Your task to perform on an android device: see tabs open on other devices in the chrome app Image 0: 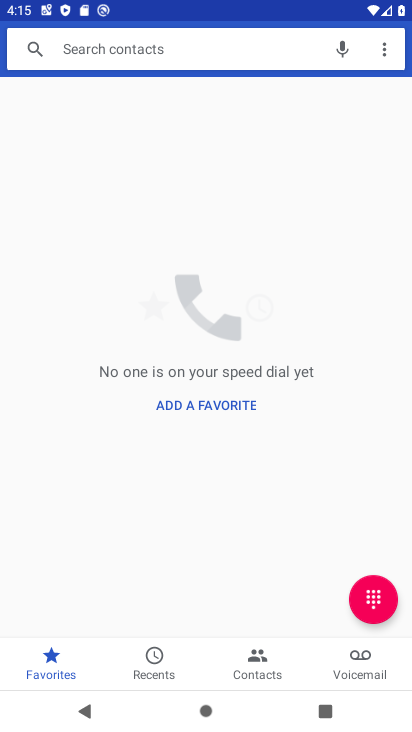
Step 0: press home button
Your task to perform on an android device: see tabs open on other devices in the chrome app Image 1: 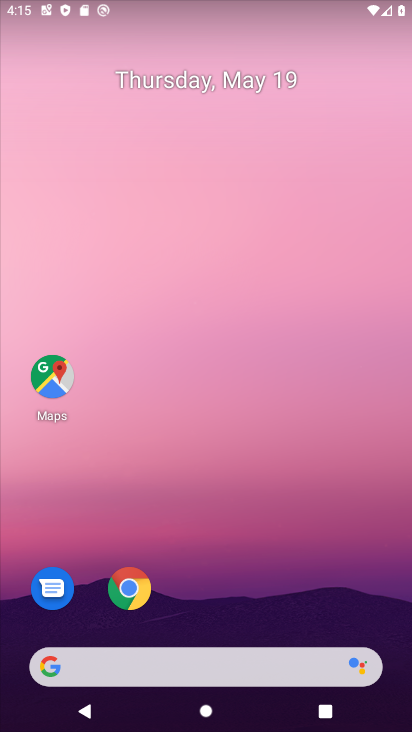
Step 1: click (118, 608)
Your task to perform on an android device: see tabs open on other devices in the chrome app Image 2: 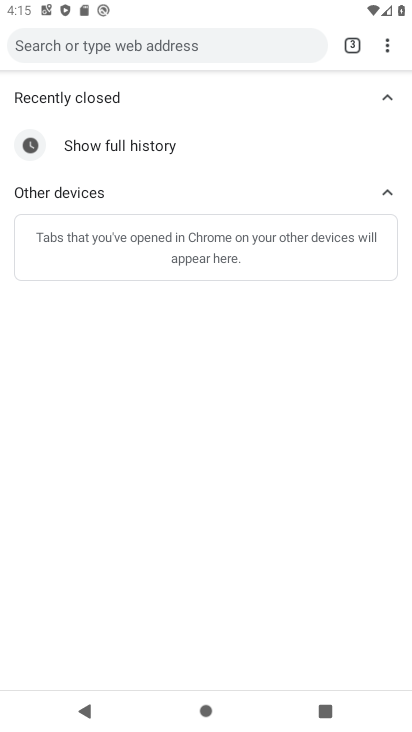
Step 2: click (379, 45)
Your task to perform on an android device: see tabs open on other devices in the chrome app Image 3: 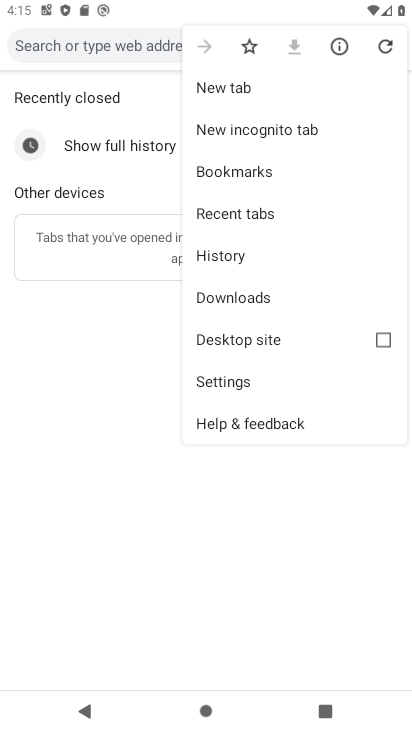
Step 3: click (214, 222)
Your task to perform on an android device: see tabs open on other devices in the chrome app Image 4: 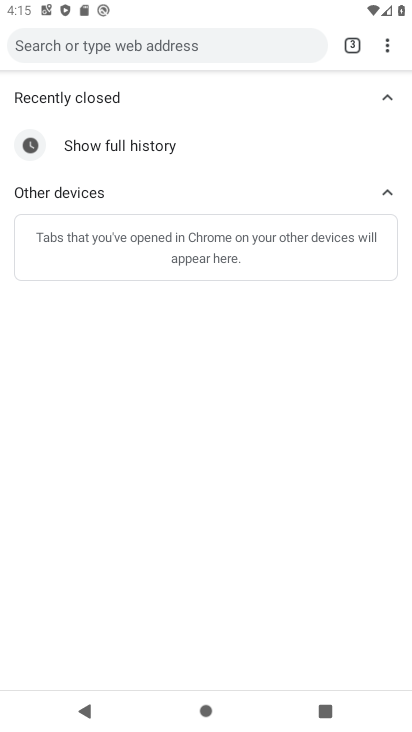
Step 4: task complete